Your task to perform on an android device: refresh tabs in the chrome app Image 0: 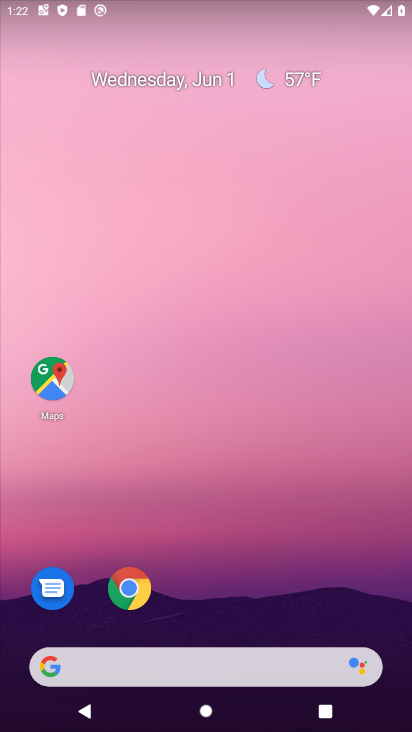
Step 0: click (139, 579)
Your task to perform on an android device: refresh tabs in the chrome app Image 1: 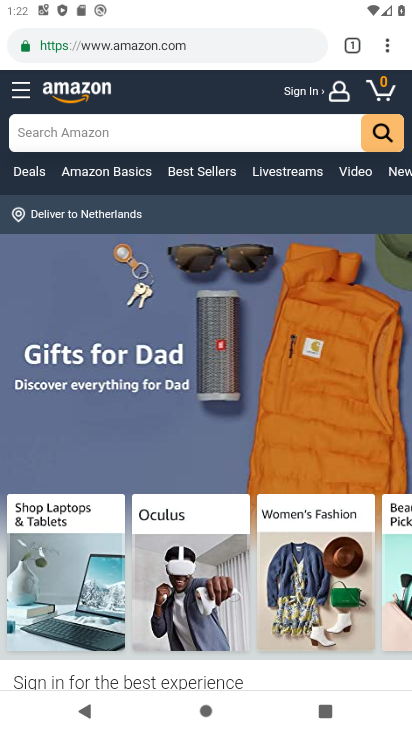
Step 1: click (390, 37)
Your task to perform on an android device: refresh tabs in the chrome app Image 2: 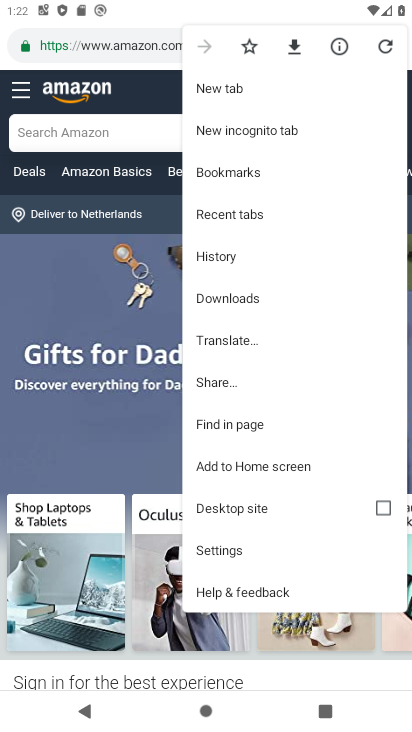
Step 2: click (387, 37)
Your task to perform on an android device: refresh tabs in the chrome app Image 3: 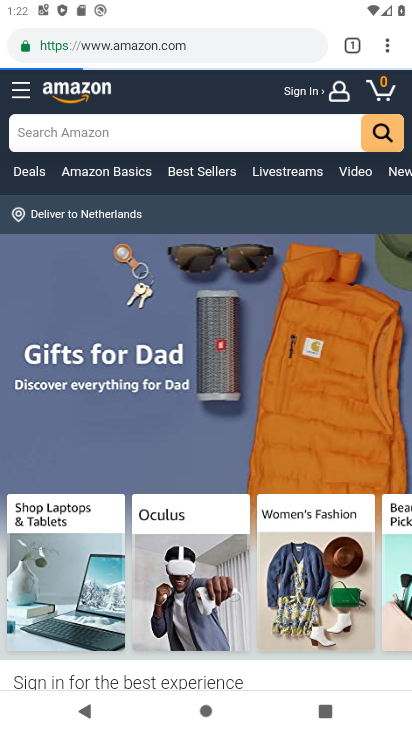
Step 3: task complete